Your task to perform on an android device: refresh tabs in the chrome app Image 0: 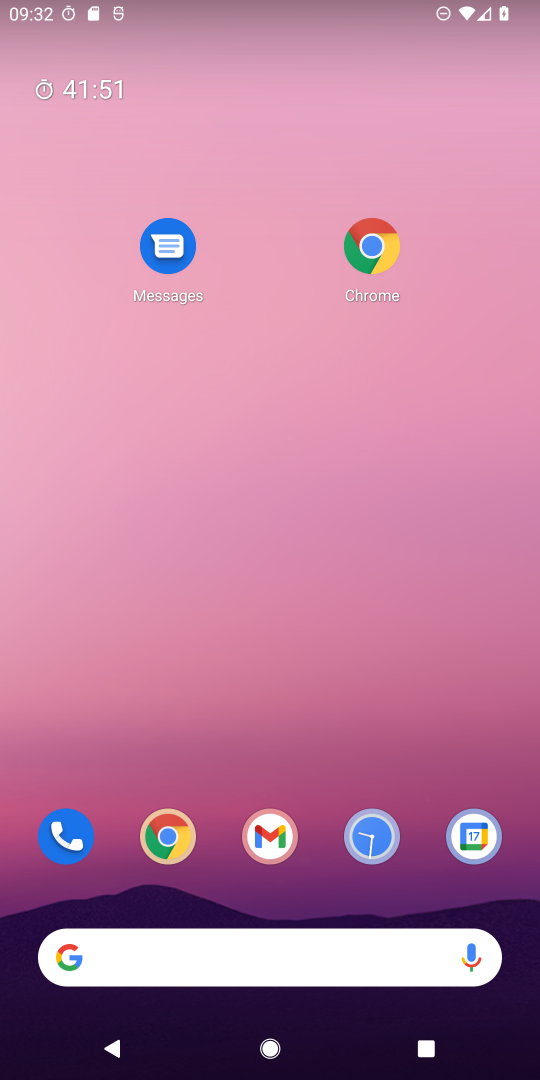
Step 0: drag from (284, 641) to (321, 441)
Your task to perform on an android device: refresh tabs in the chrome app Image 1: 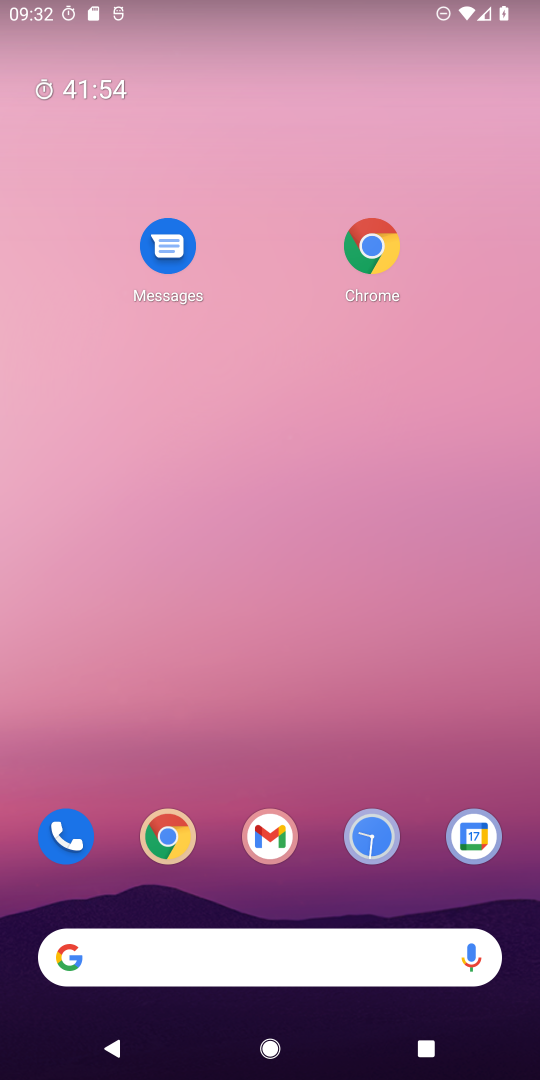
Step 1: click (373, 250)
Your task to perform on an android device: refresh tabs in the chrome app Image 2: 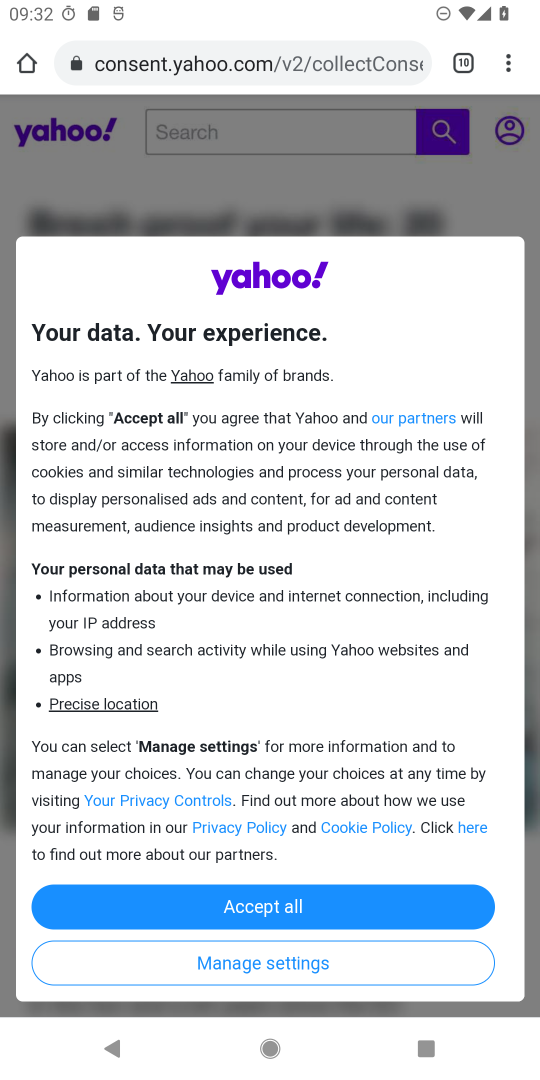
Step 2: click (522, 50)
Your task to perform on an android device: refresh tabs in the chrome app Image 3: 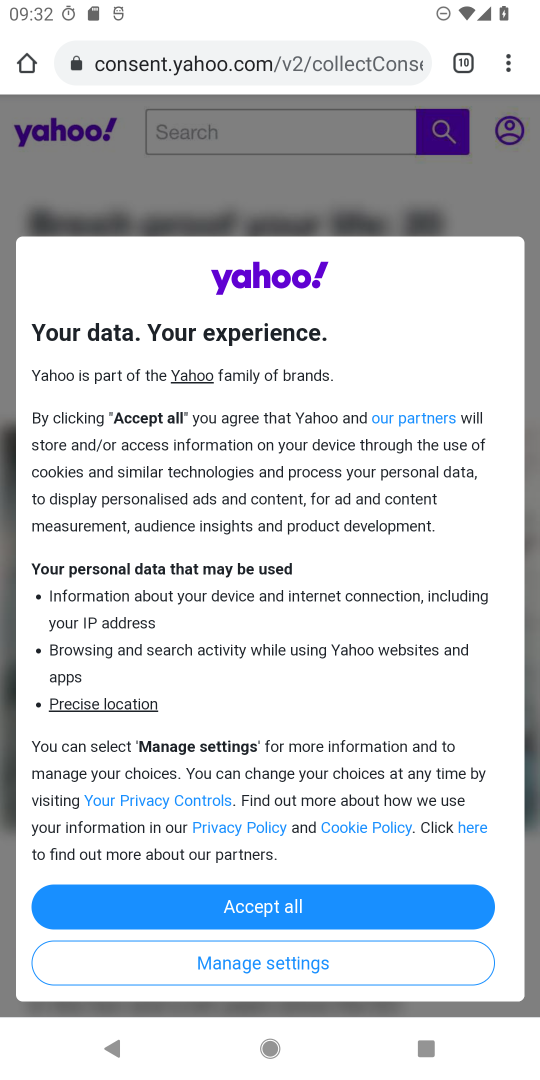
Step 3: click (522, 50)
Your task to perform on an android device: refresh tabs in the chrome app Image 4: 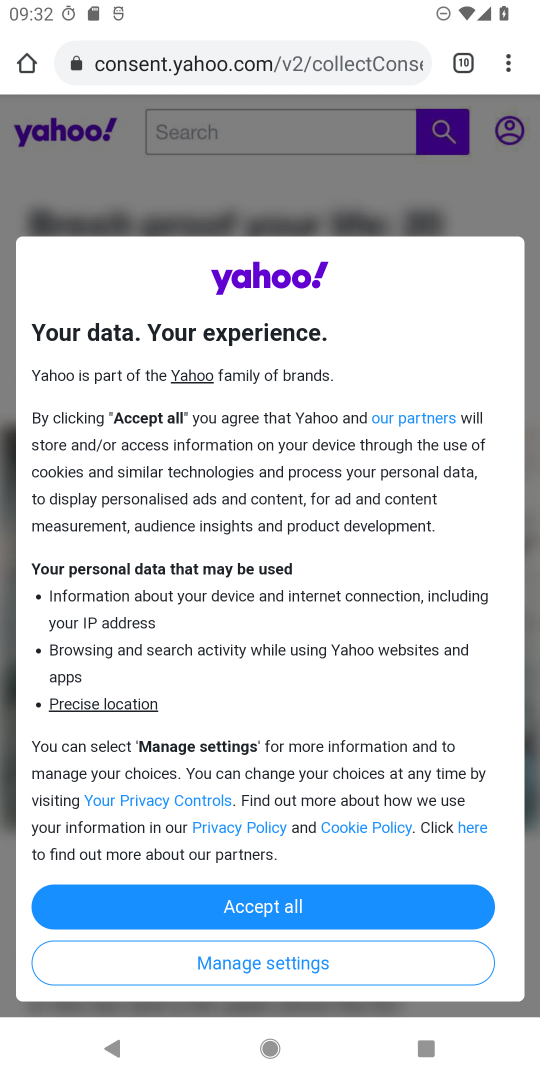
Step 4: click (522, 50)
Your task to perform on an android device: refresh tabs in the chrome app Image 5: 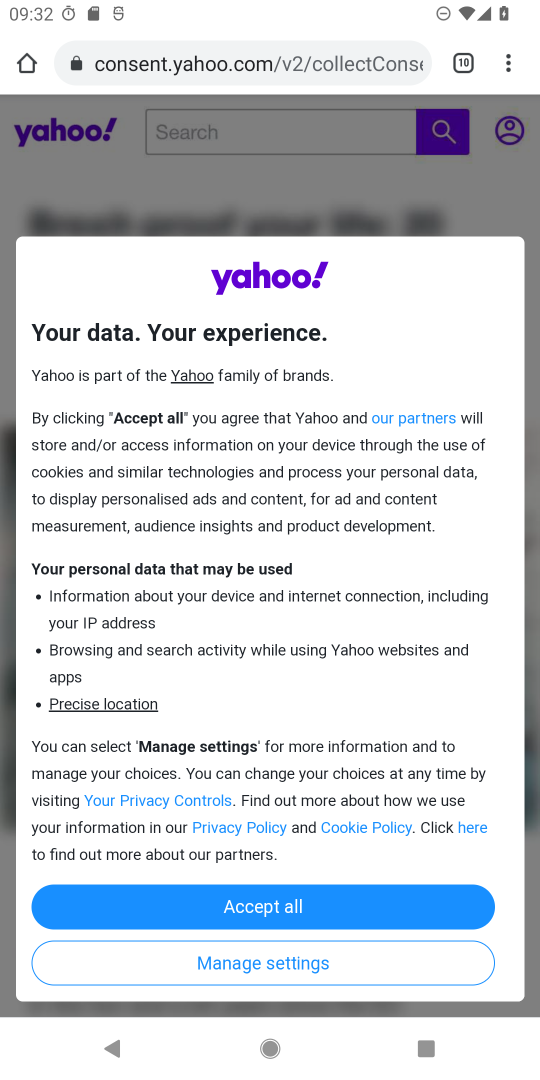
Step 5: click (493, 56)
Your task to perform on an android device: refresh tabs in the chrome app Image 6: 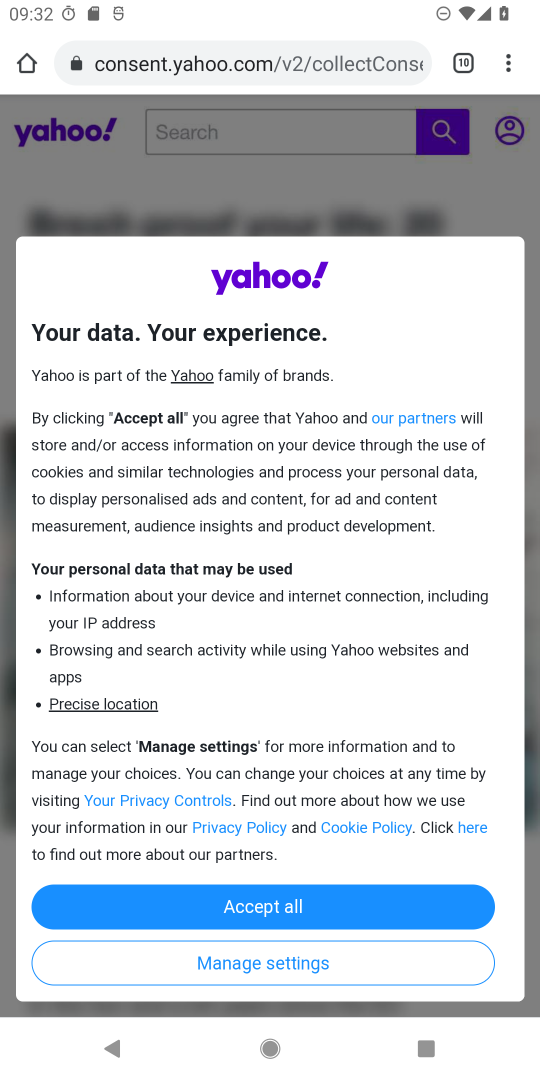
Step 6: click (493, 56)
Your task to perform on an android device: refresh tabs in the chrome app Image 7: 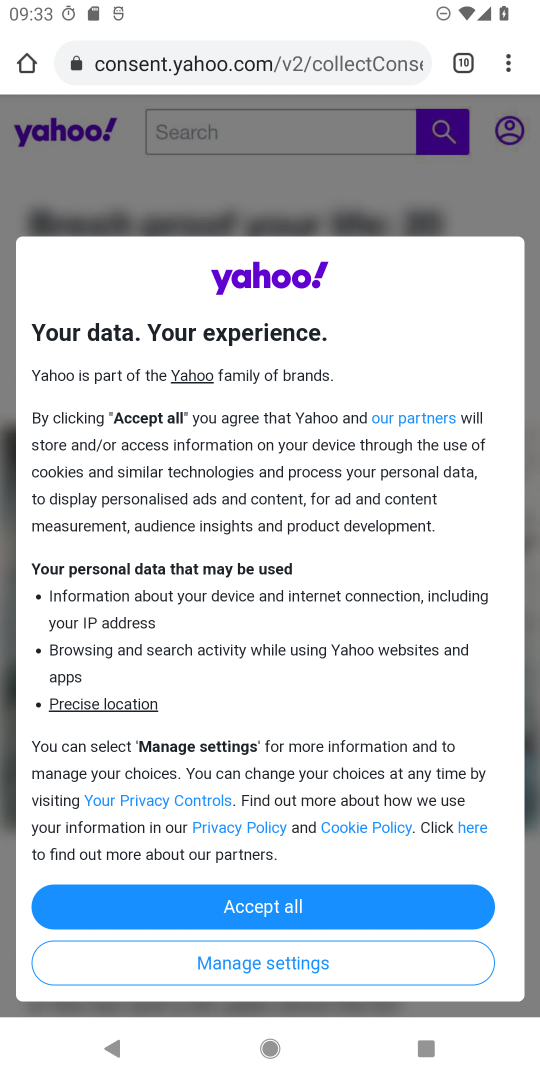
Step 7: click (515, 51)
Your task to perform on an android device: refresh tabs in the chrome app Image 8: 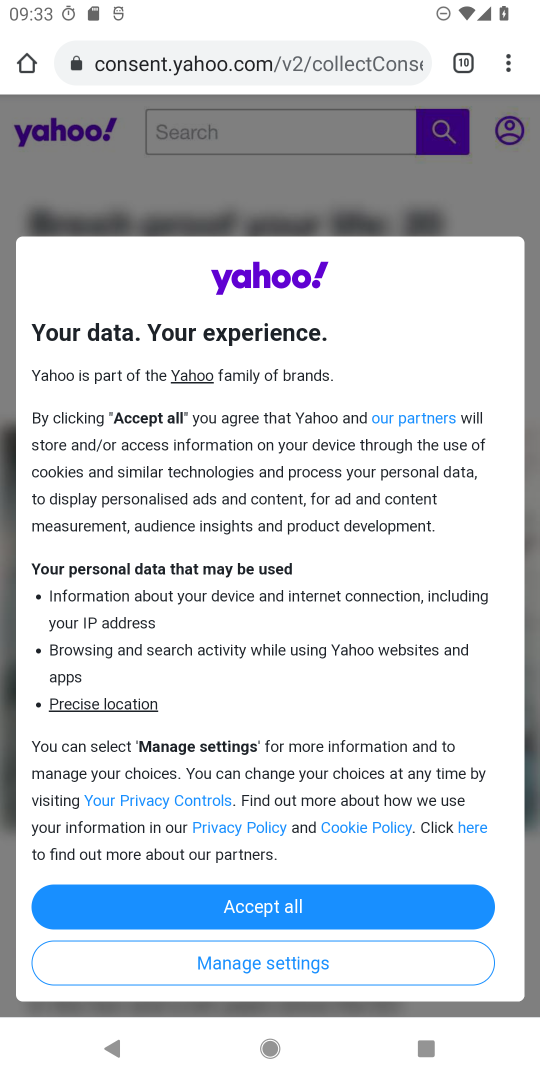
Step 8: click (492, 54)
Your task to perform on an android device: refresh tabs in the chrome app Image 9: 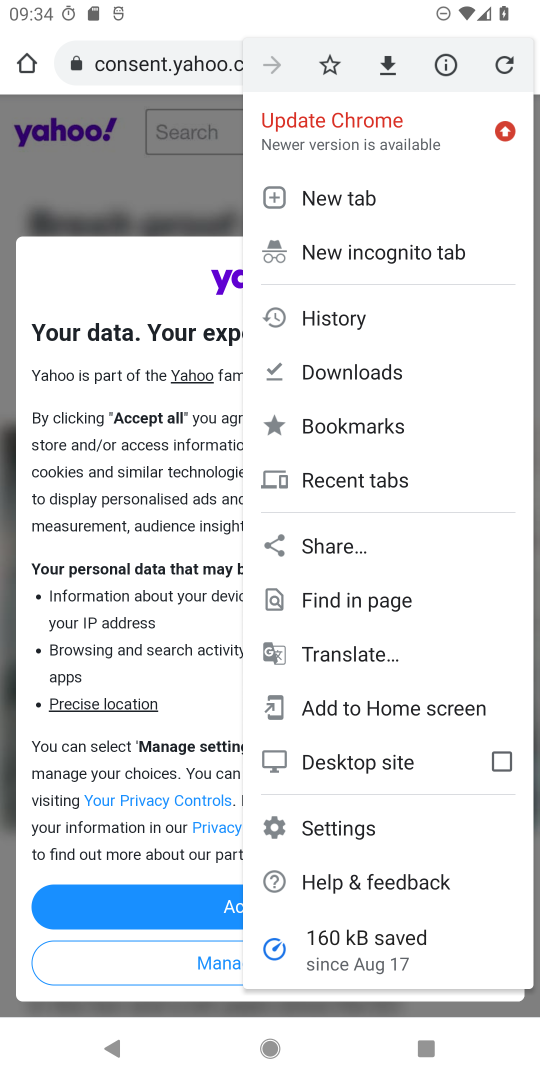
Step 9: click (517, 48)
Your task to perform on an android device: refresh tabs in the chrome app Image 10: 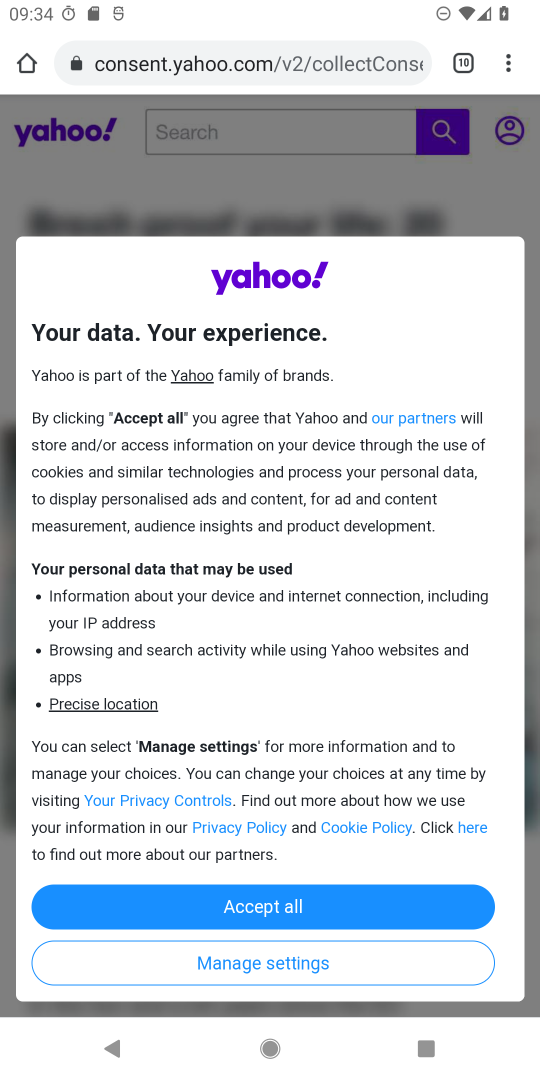
Step 10: click (508, 68)
Your task to perform on an android device: refresh tabs in the chrome app Image 11: 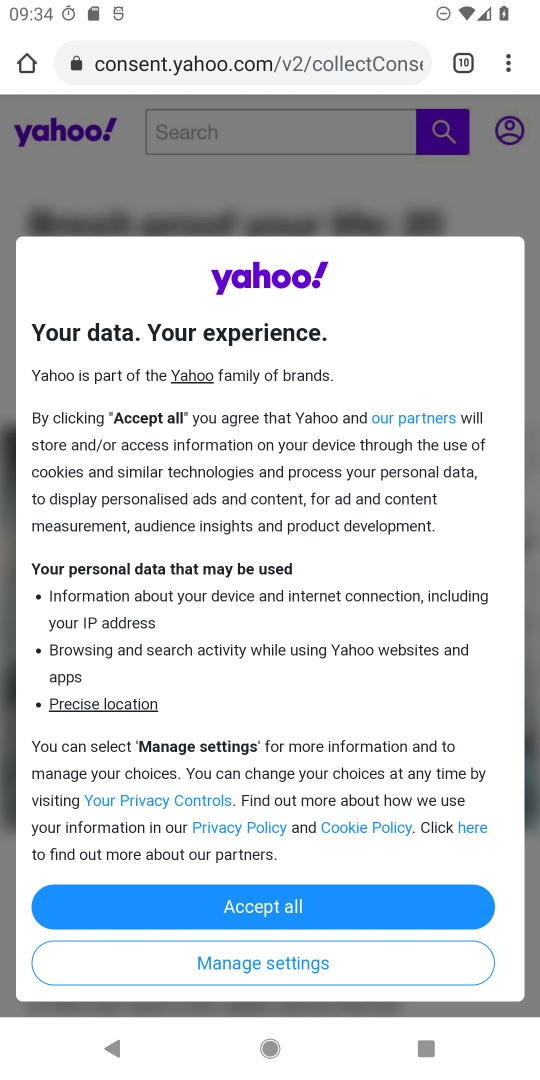
Step 11: click (496, 54)
Your task to perform on an android device: refresh tabs in the chrome app Image 12: 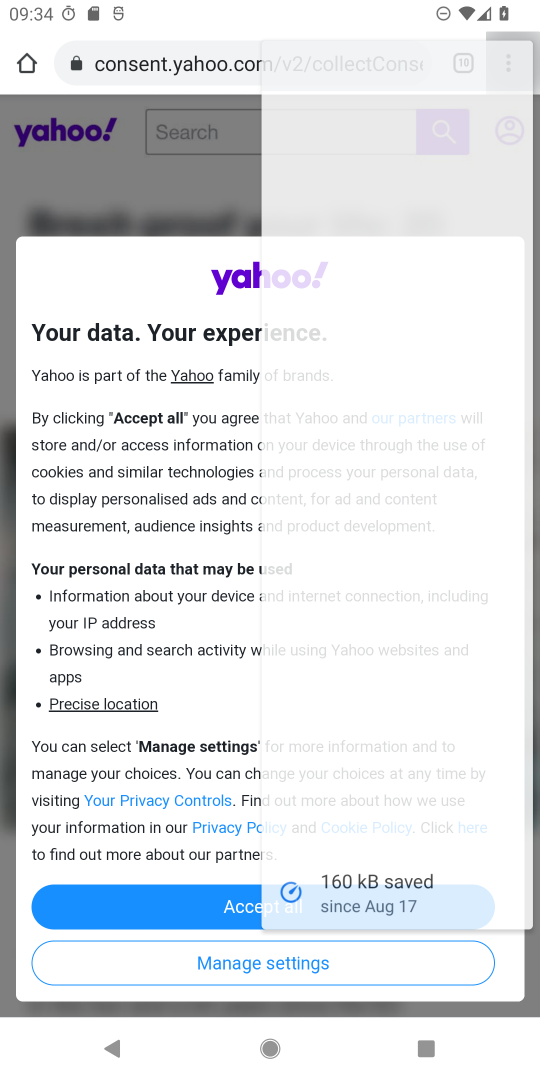
Step 12: task complete